Your task to perform on an android device: turn on the 24-hour format for clock Image 0: 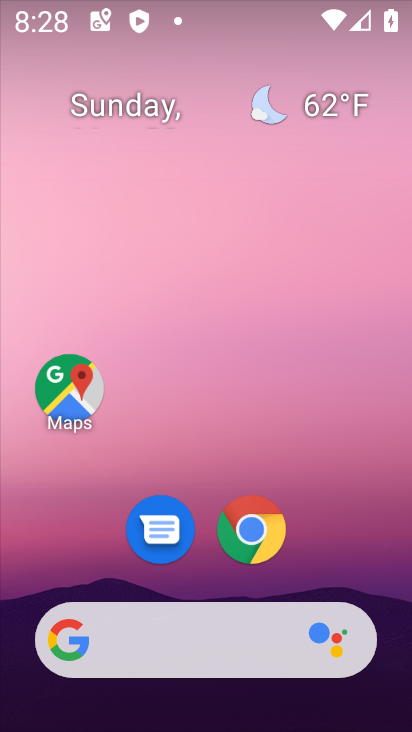
Step 0: click (71, 140)
Your task to perform on an android device: turn on the 24-hour format for clock Image 1: 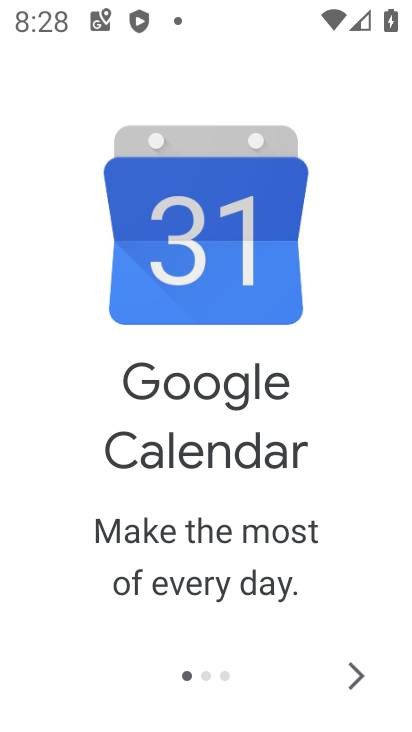
Step 1: click (359, 669)
Your task to perform on an android device: turn on the 24-hour format for clock Image 2: 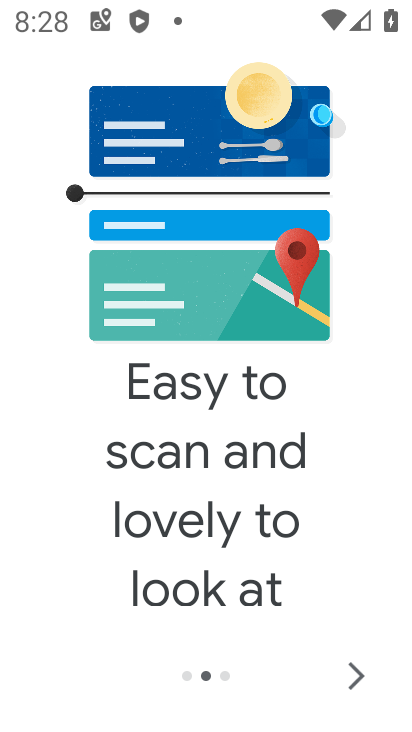
Step 2: click (352, 676)
Your task to perform on an android device: turn on the 24-hour format for clock Image 3: 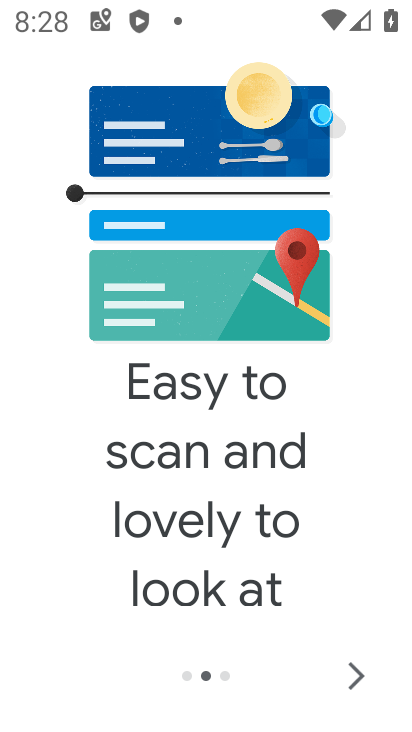
Step 3: click (350, 677)
Your task to perform on an android device: turn on the 24-hour format for clock Image 4: 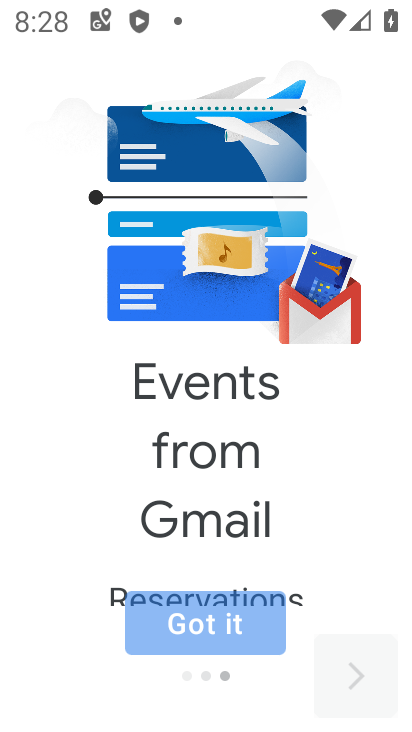
Step 4: click (349, 681)
Your task to perform on an android device: turn on the 24-hour format for clock Image 5: 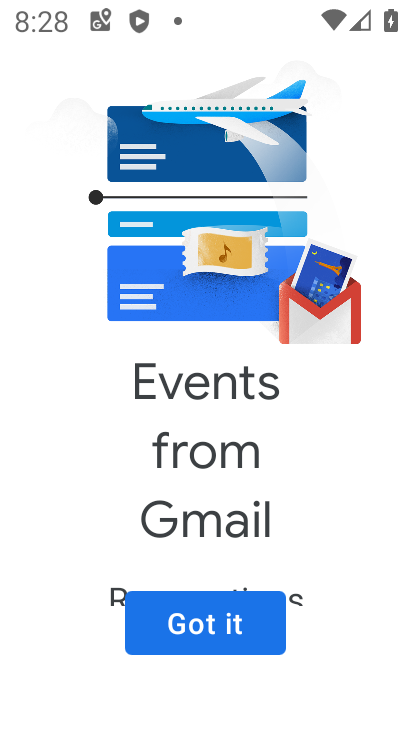
Step 5: click (349, 681)
Your task to perform on an android device: turn on the 24-hour format for clock Image 6: 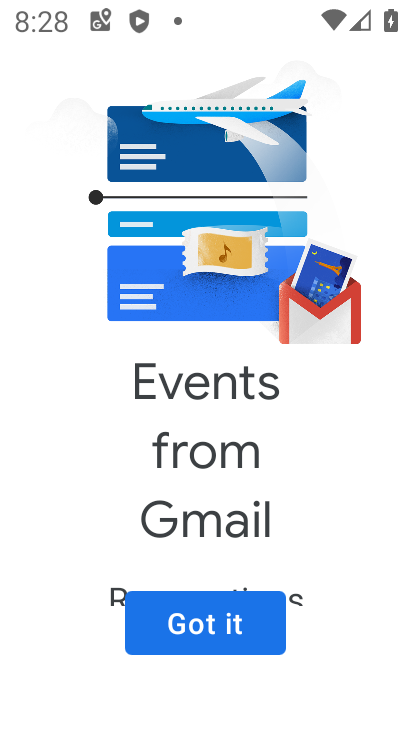
Step 6: click (352, 680)
Your task to perform on an android device: turn on the 24-hour format for clock Image 7: 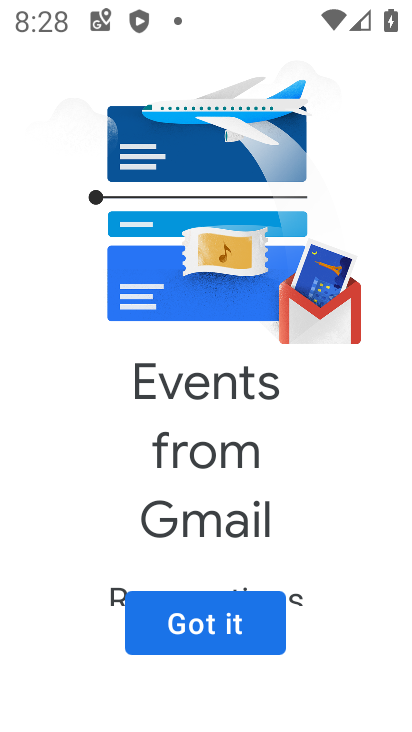
Step 7: click (354, 678)
Your task to perform on an android device: turn on the 24-hour format for clock Image 8: 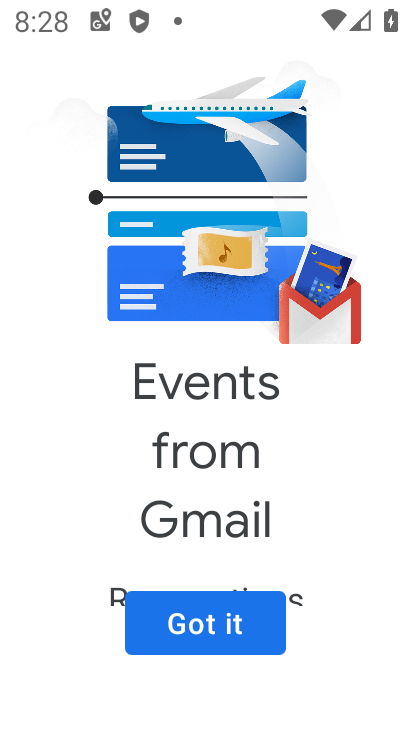
Step 8: click (233, 613)
Your task to perform on an android device: turn on the 24-hour format for clock Image 9: 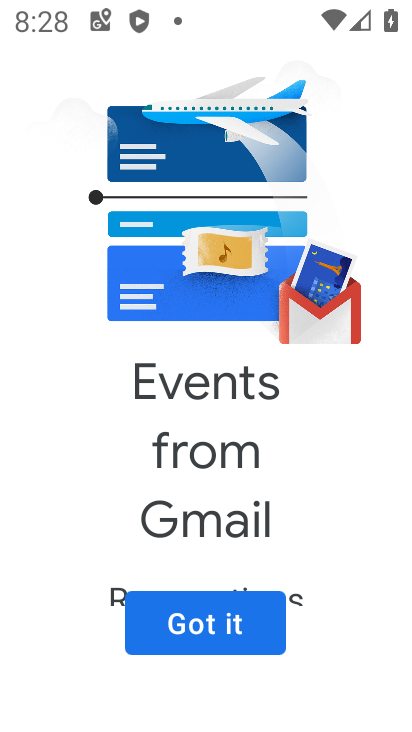
Step 9: click (225, 617)
Your task to perform on an android device: turn on the 24-hour format for clock Image 10: 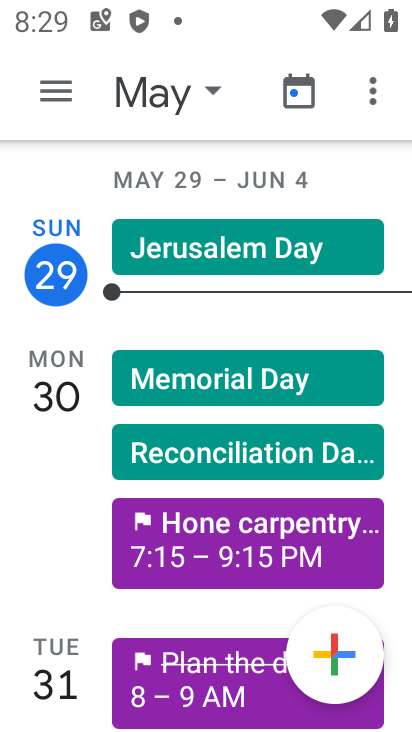
Step 10: press back button
Your task to perform on an android device: turn on the 24-hour format for clock Image 11: 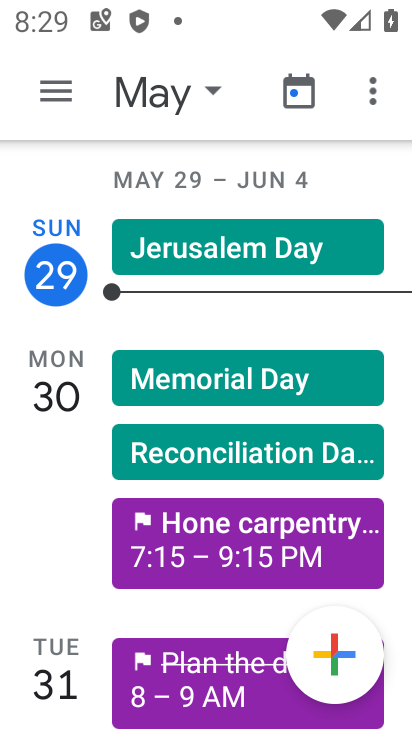
Step 11: press back button
Your task to perform on an android device: turn on the 24-hour format for clock Image 12: 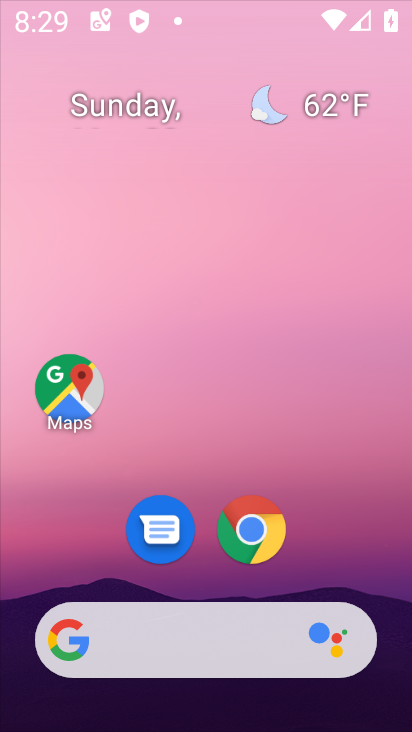
Step 12: press back button
Your task to perform on an android device: turn on the 24-hour format for clock Image 13: 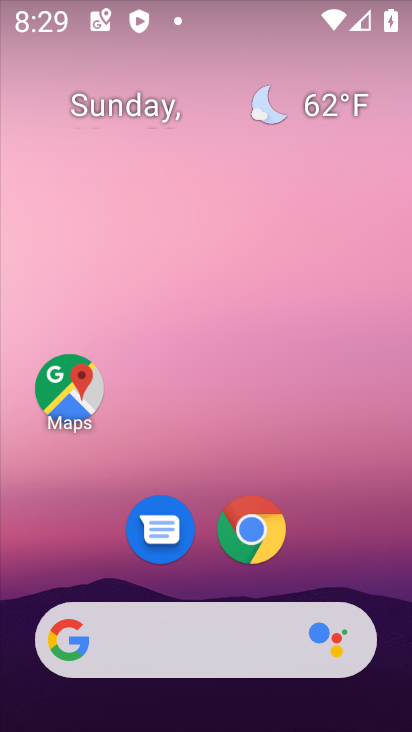
Step 13: drag from (280, 704) to (124, 48)
Your task to perform on an android device: turn on the 24-hour format for clock Image 14: 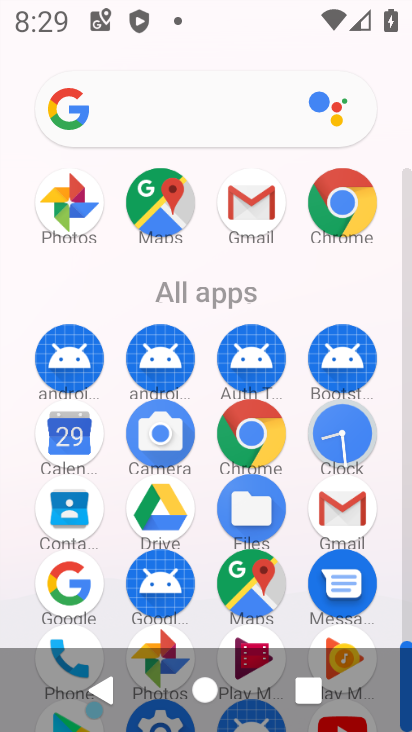
Step 14: click (340, 429)
Your task to perform on an android device: turn on the 24-hour format for clock Image 15: 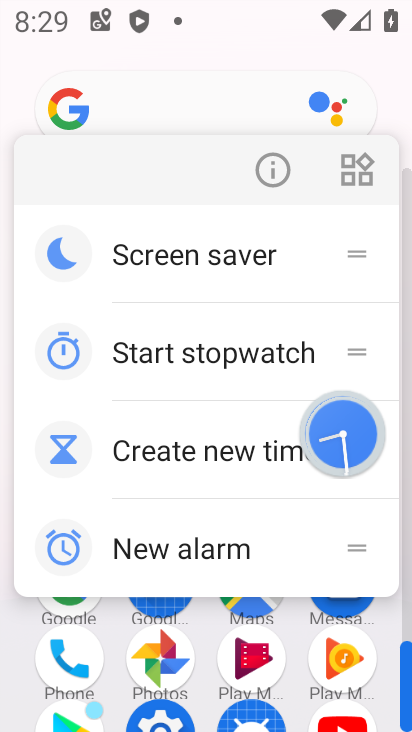
Step 15: click (341, 428)
Your task to perform on an android device: turn on the 24-hour format for clock Image 16: 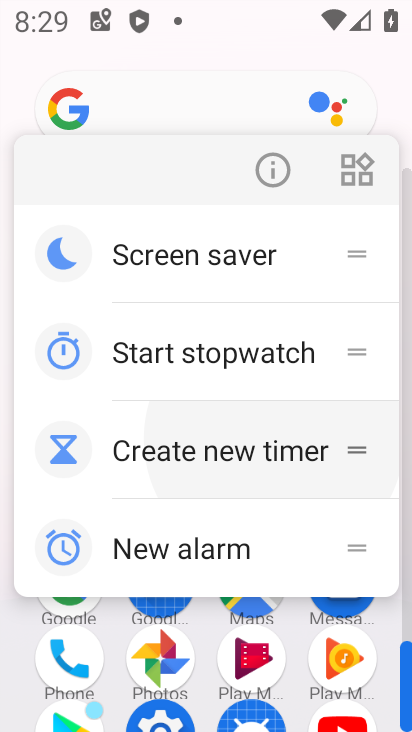
Step 16: click (341, 428)
Your task to perform on an android device: turn on the 24-hour format for clock Image 17: 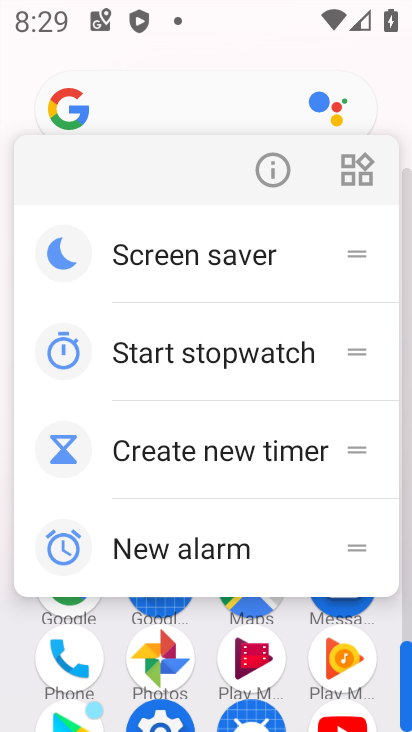
Step 17: press back button
Your task to perform on an android device: turn on the 24-hour format for clock Image 18: 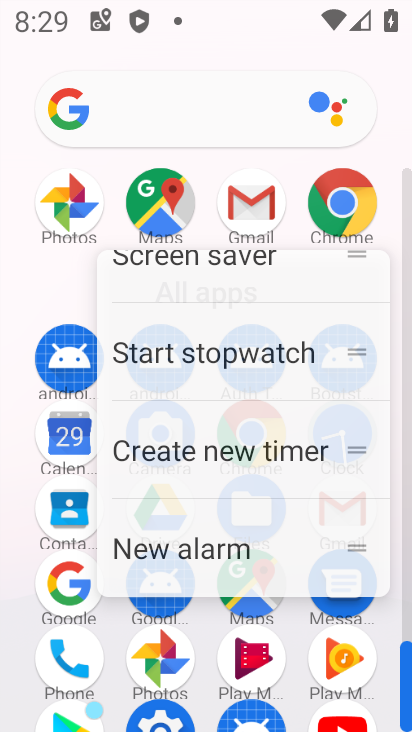
Step 18: press back button
Your task to perform on an android device: turn on the 24-hour format for clock Image 19: 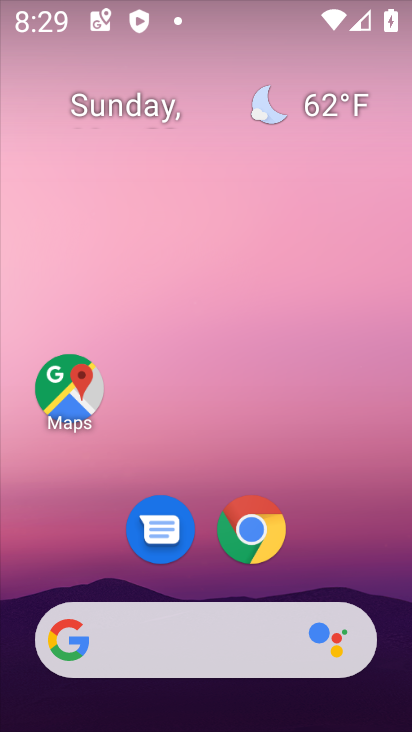
Step 19: drag from (208, 458) to (150, 69)
Your task to perform on an android device: turn on the 24-hour format for clock Image 20: 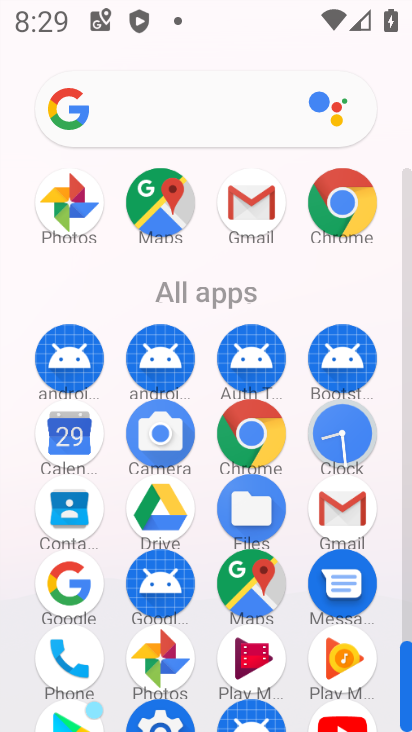
Step 20: click (327, 419)
Your task to perform on an android device: turn on the 24-hour format for clock Image 21: 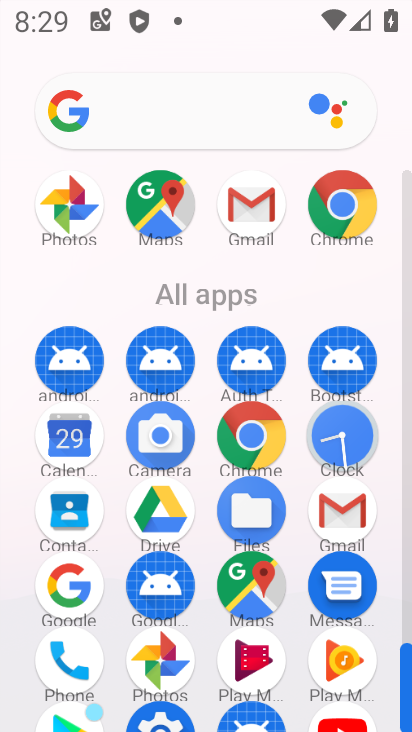
Step 21: click (335, 437)
Your task to perform on an android device: turn on the 24-hour format for clock Image 22: 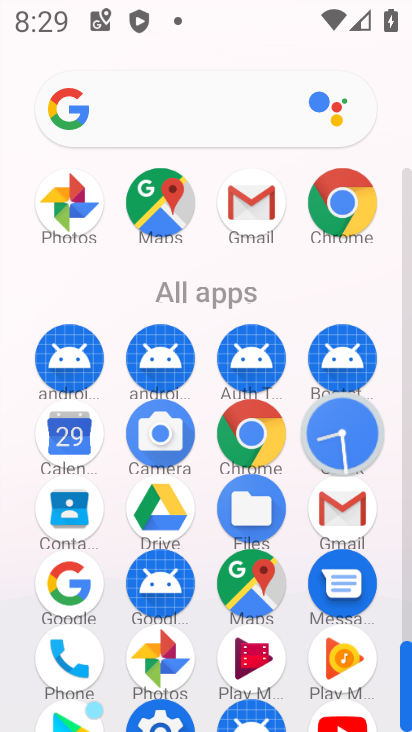
Step 22: click (345, 430)
Your task to perform on an android device: turn on the 24-hour format for clock Image 23: 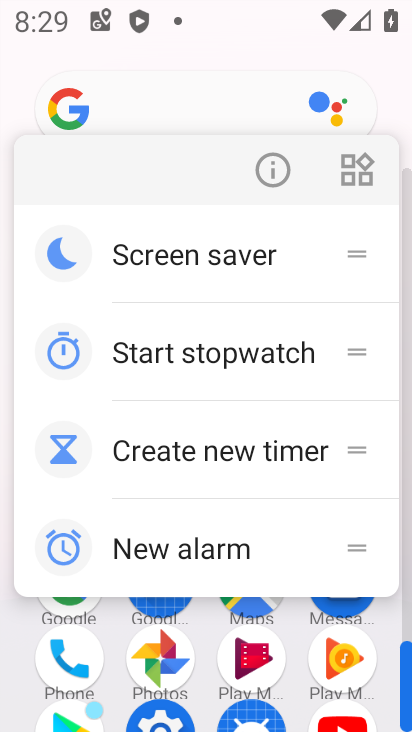
Step 23: click (346, 429)
Your task to perform on an android device: turn on the 24-hour format for clock Image 24: 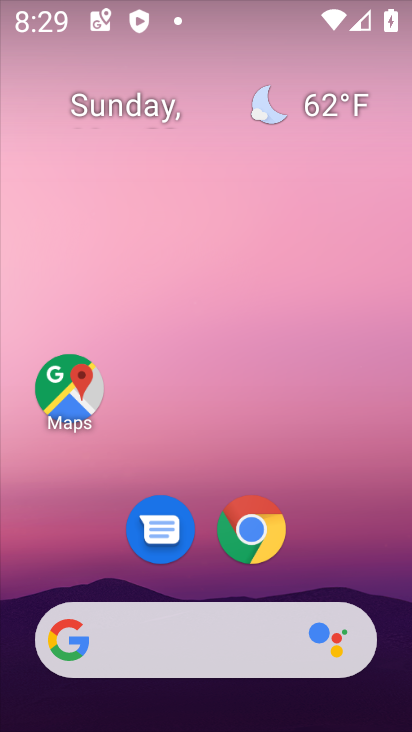
Step 24: drag from (263, 686) to (131, 0)
Your task to perform on an android device: turn on the 24-hour format for clock Image 25: 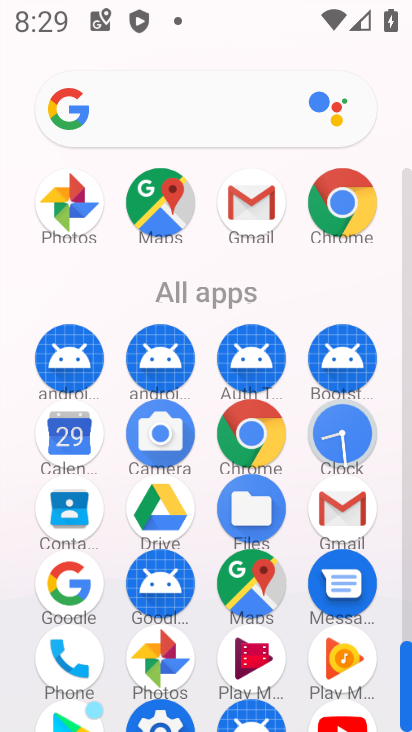
Step 25: click (332, 420)
Your task to perform on an android device: turn on the 24-hour format for clock Image 26: 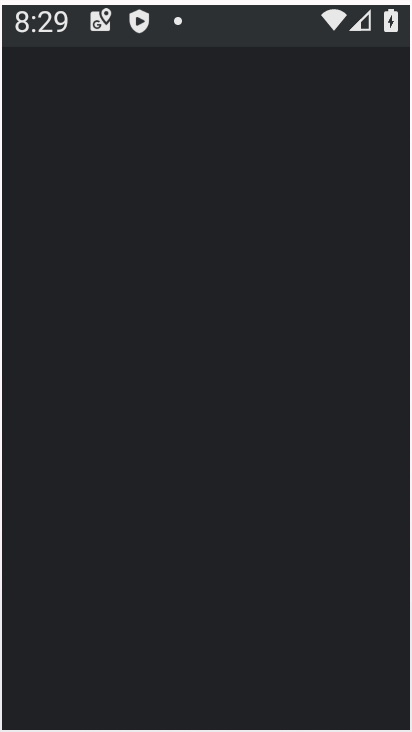
Step 26: click (338, 433)
Your task to perform on an android device: turn on the 24-hour format for clock Image 27: 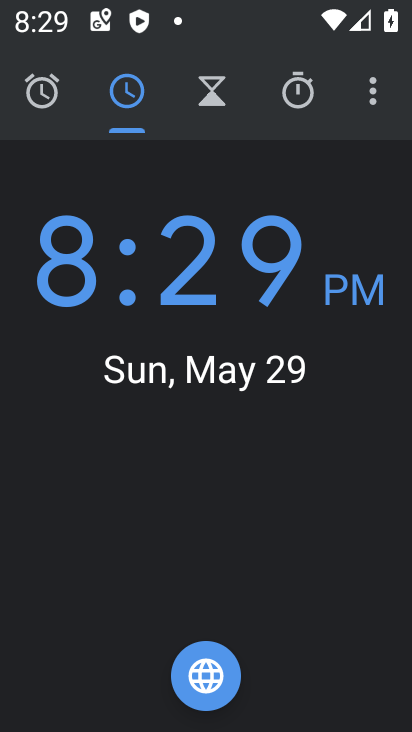
Step 27: click (374, 96)
Your task to perform on an android device: turn on the 24-hour format for clock Image 28: 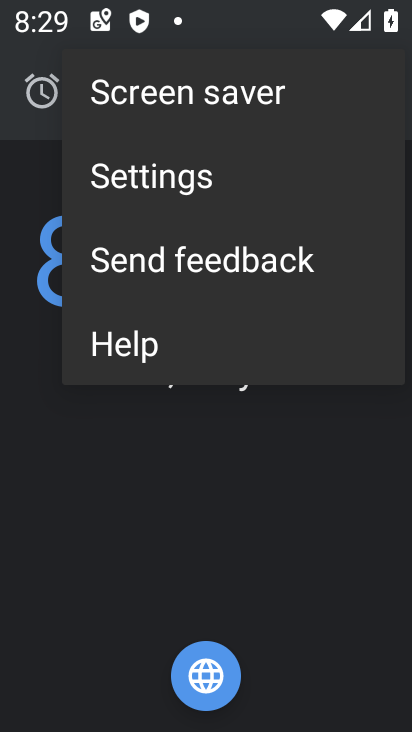
Step 28: click (170, 178)
Your task to perform on an android device: turn on the 24-hour format for clock Image 29: 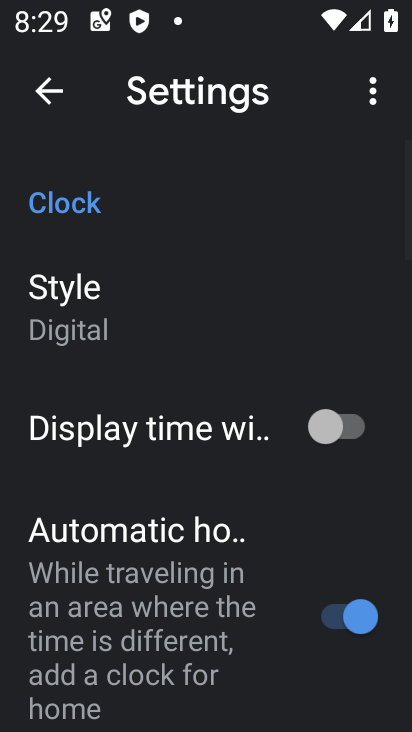
Step 29: drag from (196, 535) to (137, 37)
Your task to perform on an android device: turn on the 24-hour format for clock Image 30: 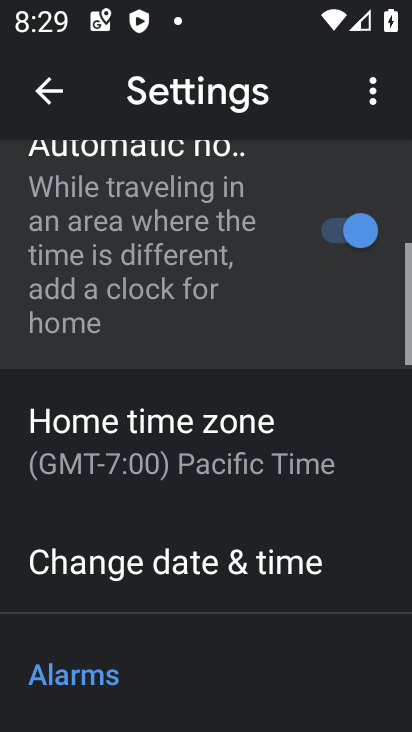
Step 30: drag from (224, 421) to (187, 136)
Your task to perform on an android device: turn on the 24-hour format for clock Image 31: 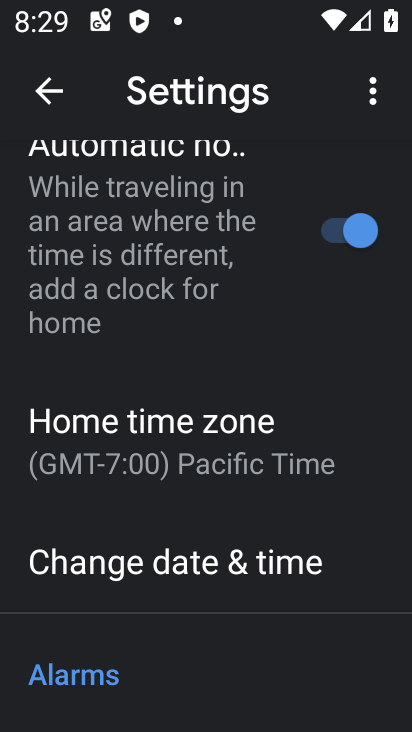
Step 31: click (149, 568)
Your task to perform on an android device: turn on the 24-hour format for clock Image 32: 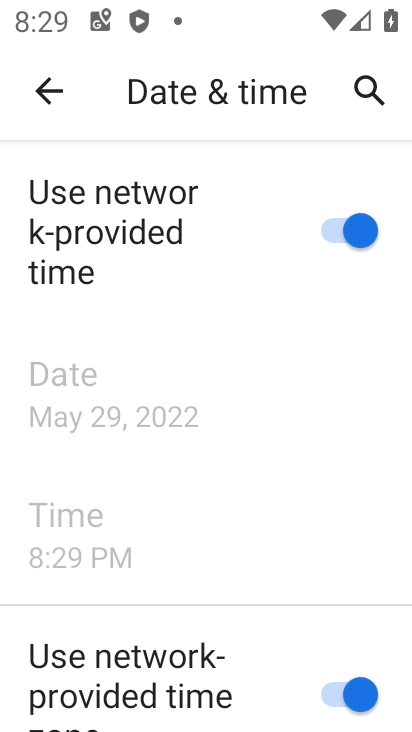
Step 32: drag from (181, 543) to (176, 169)
Your task to perform on an android device: turn on the 24-hour format for clock Image 33: 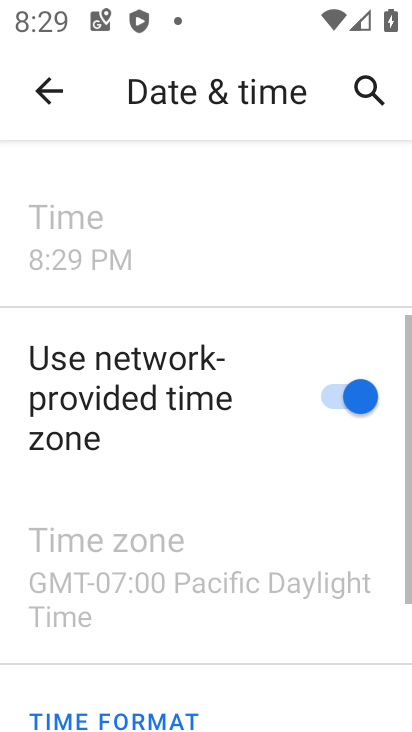
Step 33: drag from (166, 453) to (126, 123)
Your task to perform on an android device: turn on the 24-hour format for clock Image 34: 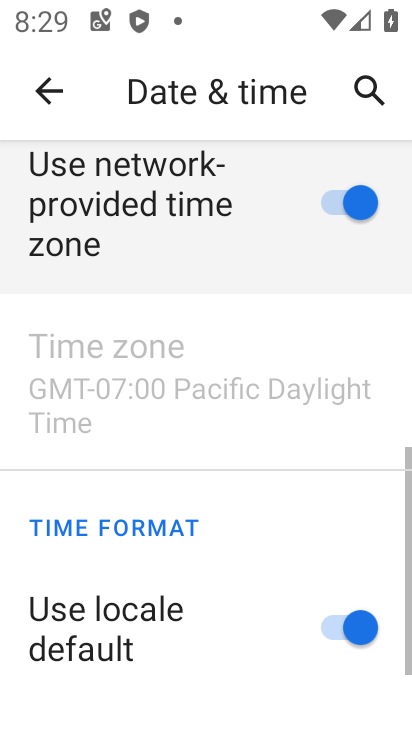
Step 34: drag from (160, 398) to (156, 90)
Your task to perform on an android device: turn on the 24-hour format for clock Image 35: 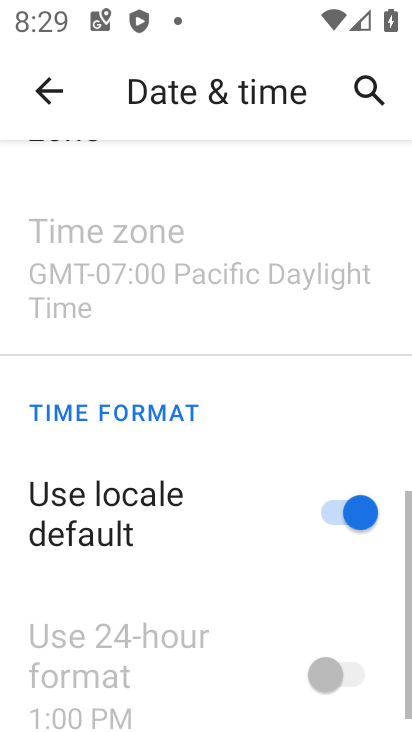
Step 35: drag from (172, 365) to (212, 174)
Your task to perform on an android device: turn on the 24-hour format for clock Image 36: 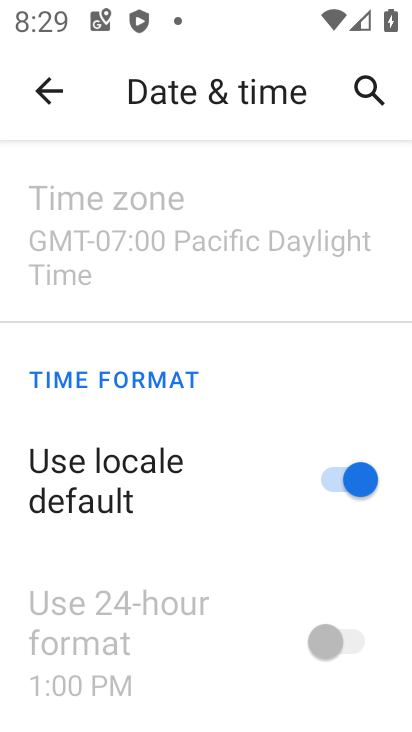
Step 36: click (352, 484)
Your task to perform on an android device: turn on the 24-hour format for clock Image 37: 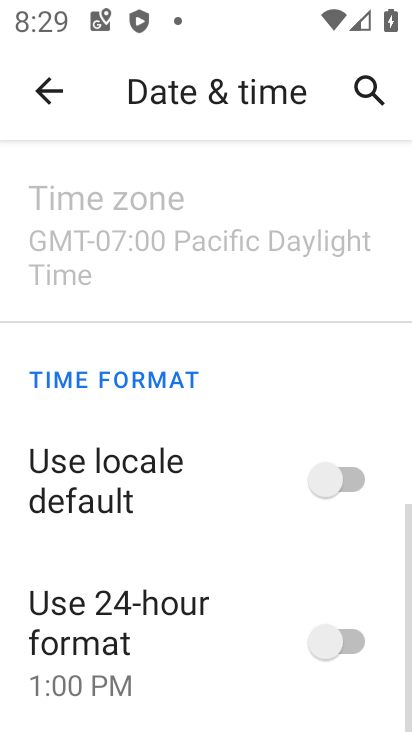
Step 37: click (322, 644)
Your task to perform on an android device: turn on the 24-hour format for clock Image 38: 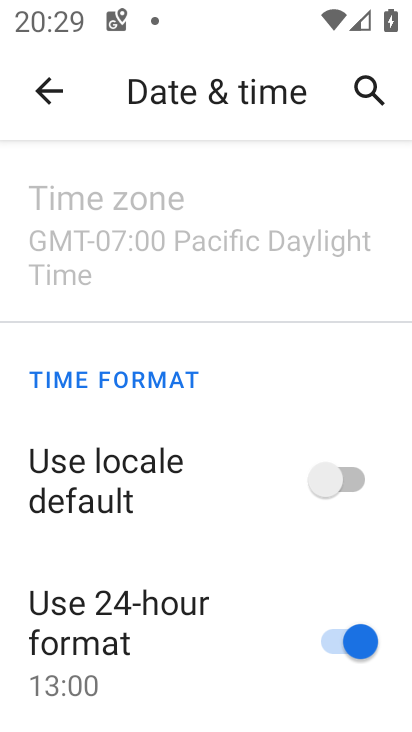
Step 38: task complete